Your task to perform on an android device: manage bookmarks in the chrome app Image 0: 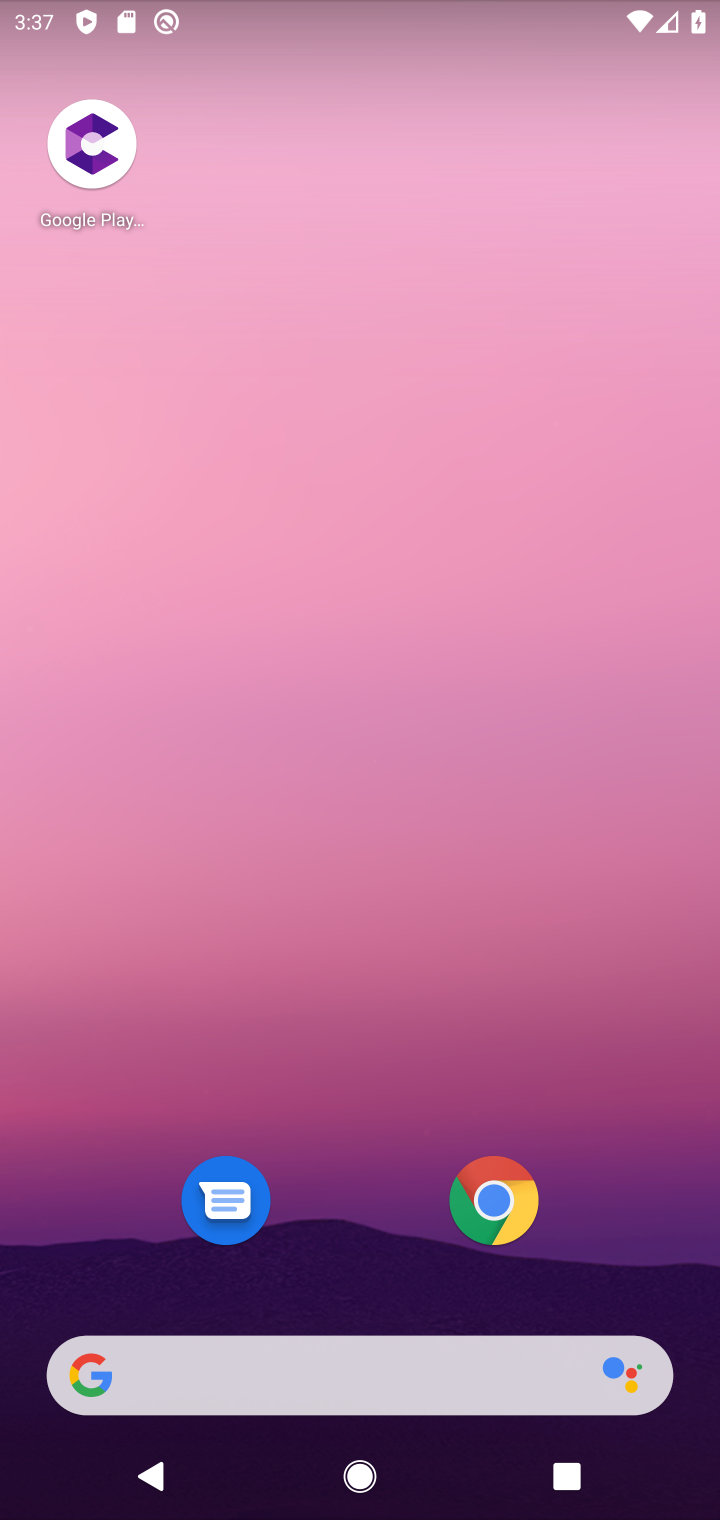
Step 0: click (478, 1227)
Your task to perform on an android device: manage bookmarks in the chrome app Image 1: 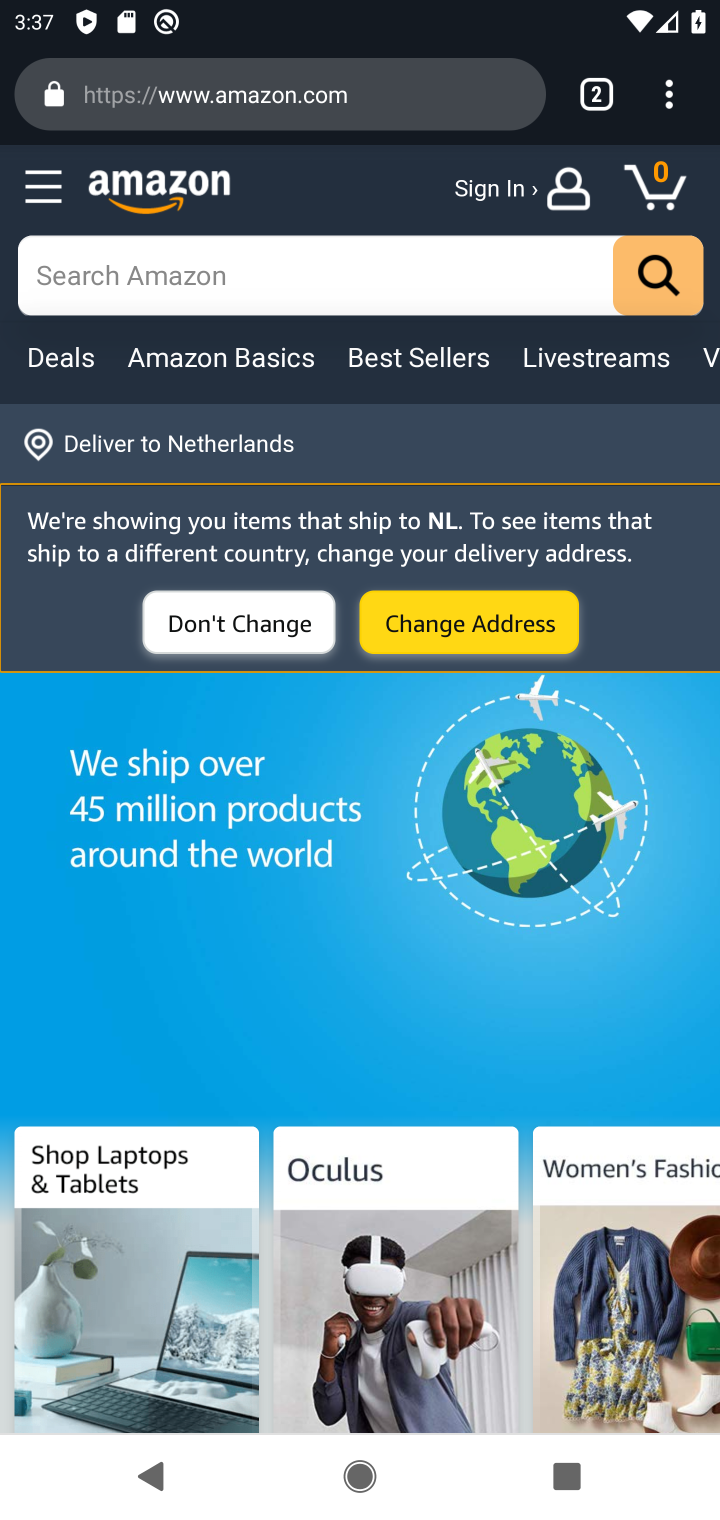
Step 1: click (674, 94)
Your task to perform on an android device: manage bookmarks in the chrome app Image 2: 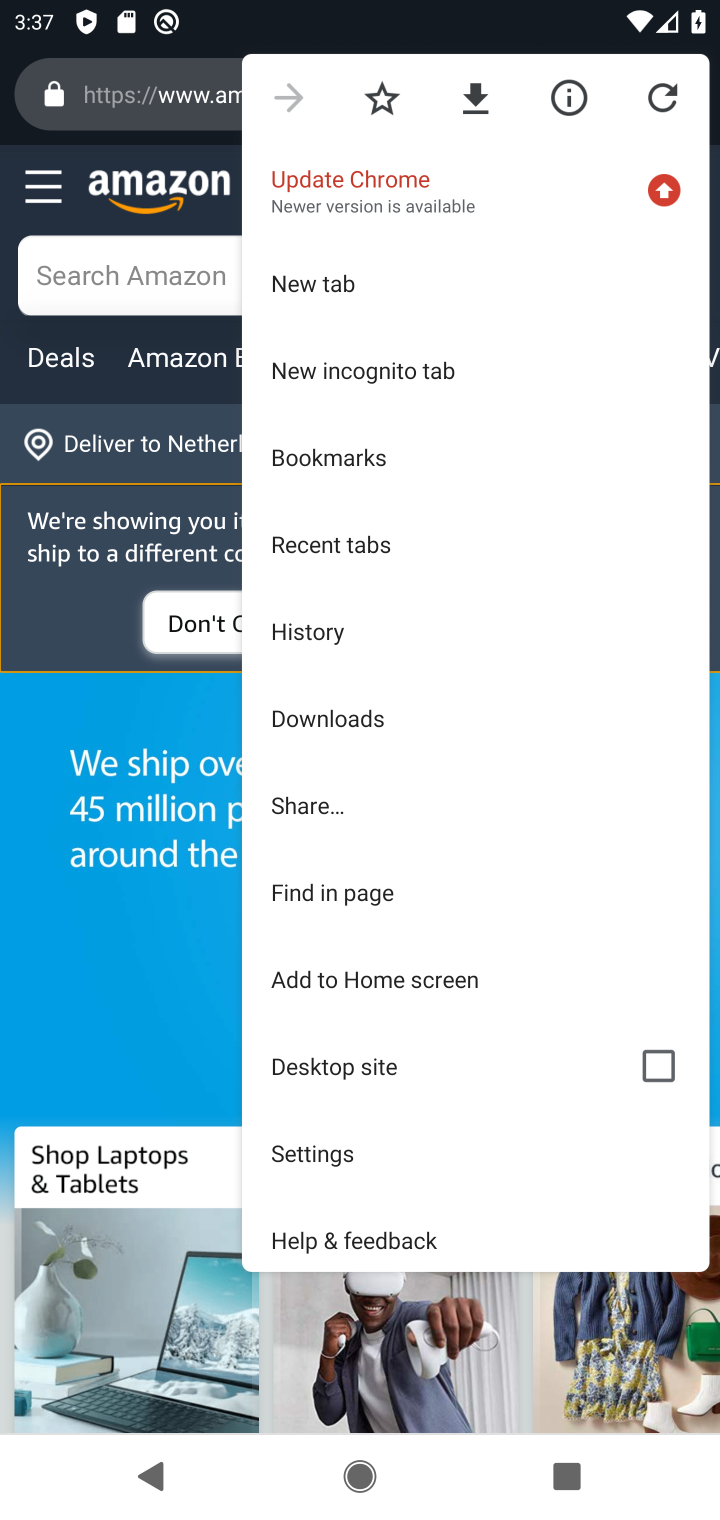
Step 2: click (340, 463)
Your task to perform on an android device: manage bookmarks in the chrome app Image 3: 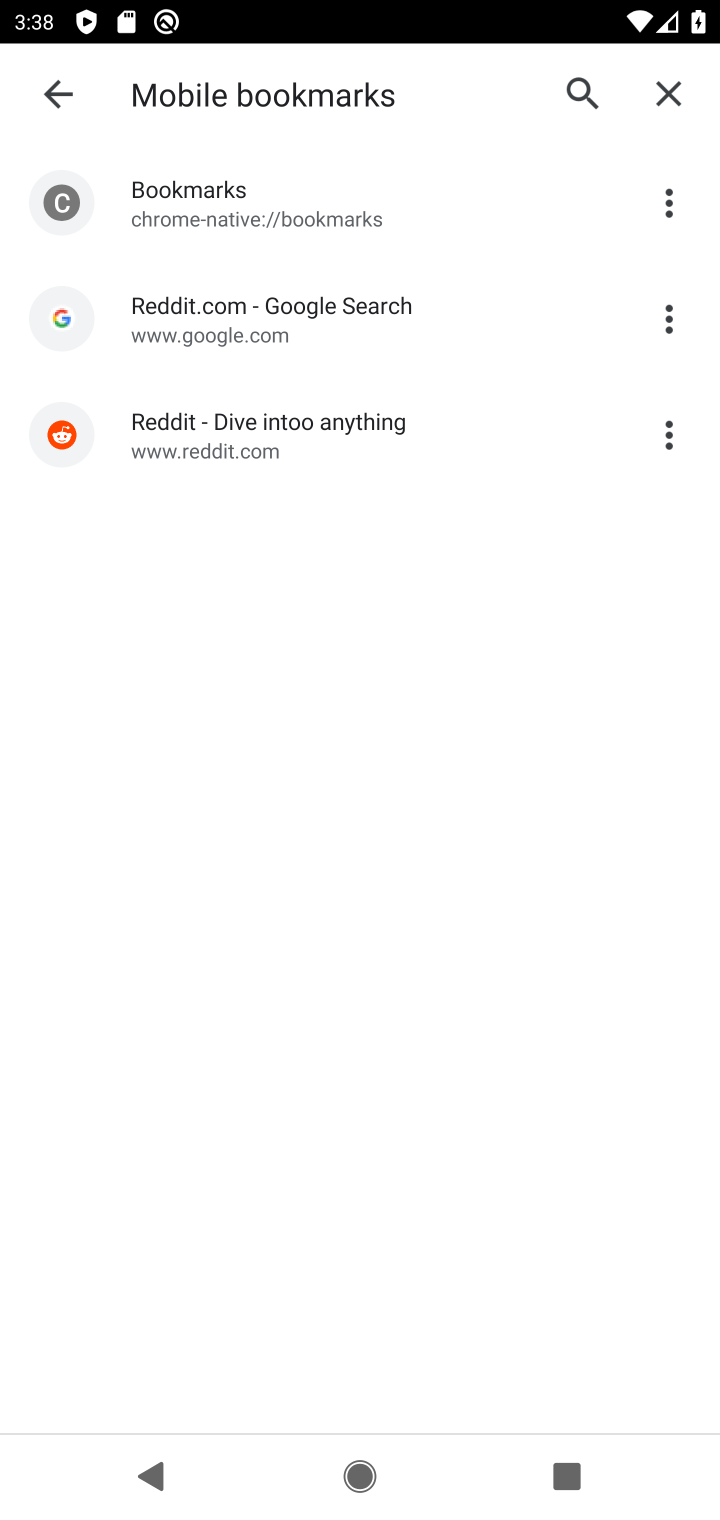
Step 3: click (659, 320)
Your task to perform on an android device: manage bookmarks in the chrome app Image 4: 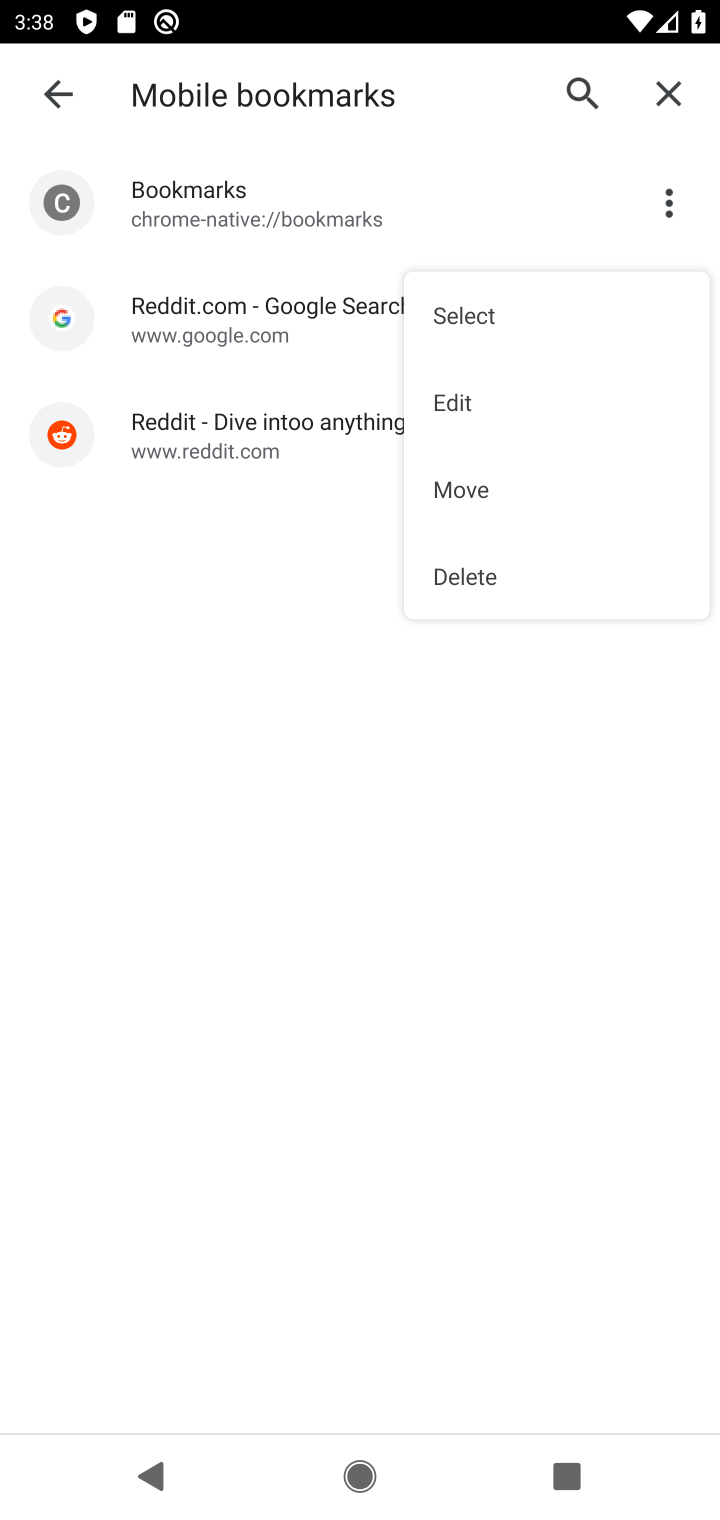
Step 4: click (479, 308)
Your task to perform on an android device: manage bookmarks in the chrome app Image 5: 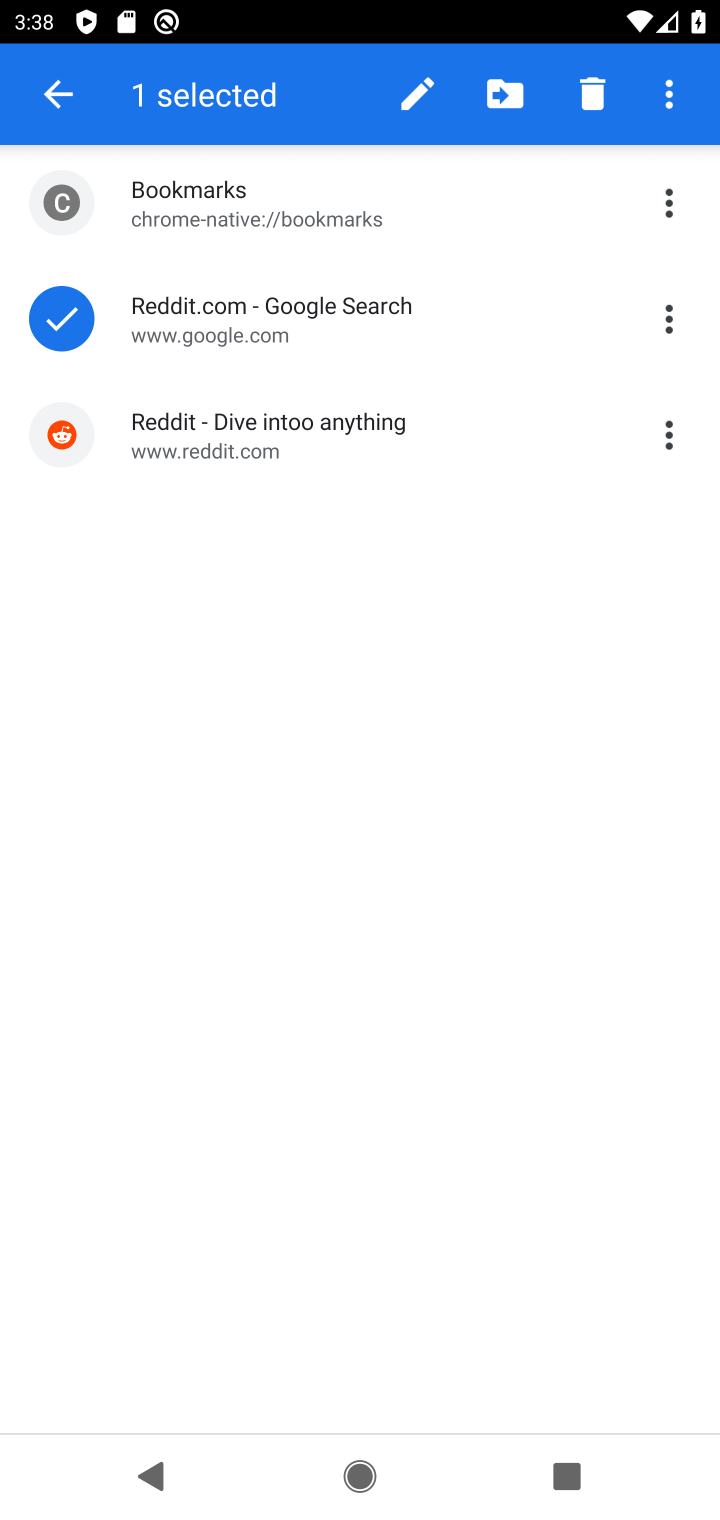
Step 5: click (287, 424)
Your task to perform on an android device: manage bookmarks in the chrome app Image 6: 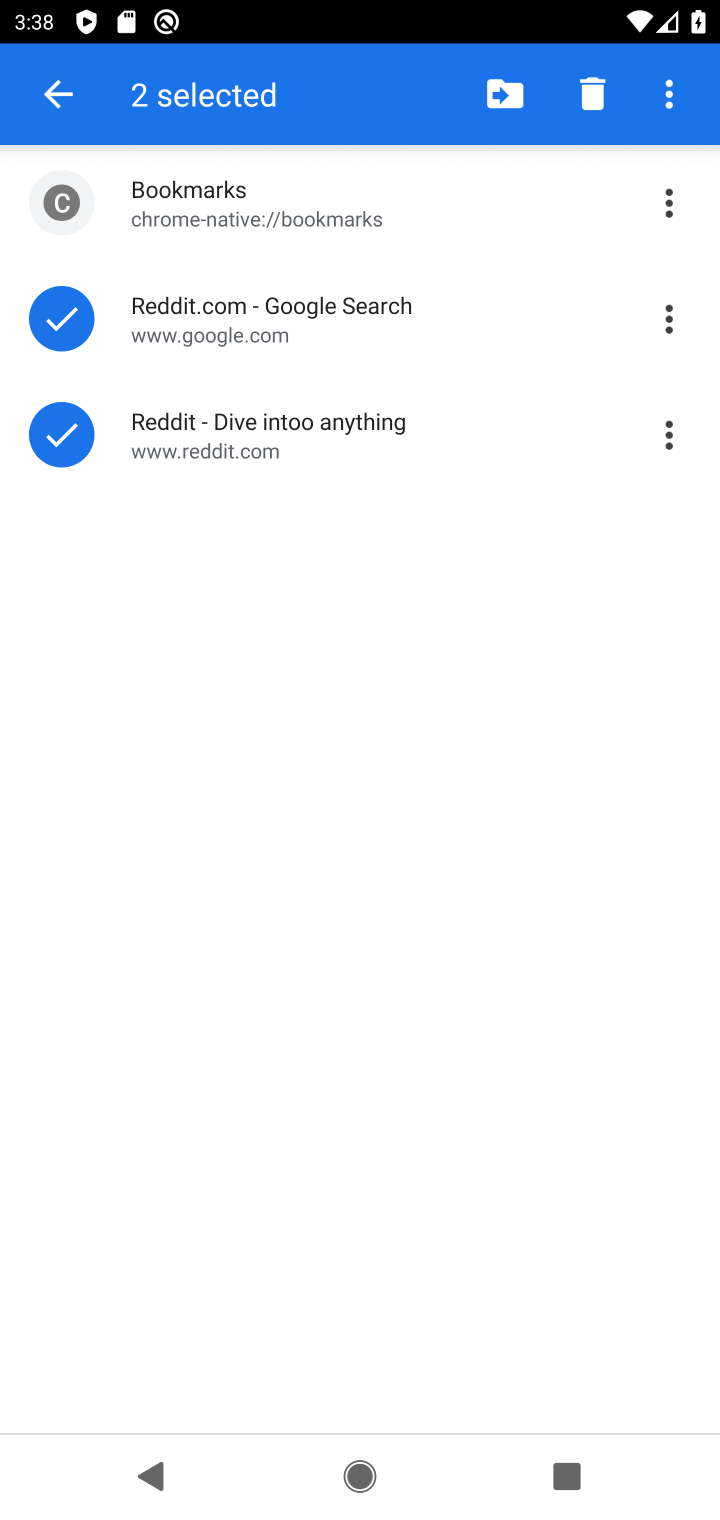
Step 6: click (497, 85)
Your task to perform on an android device: manage bookmarks in the chrome app Image 7: 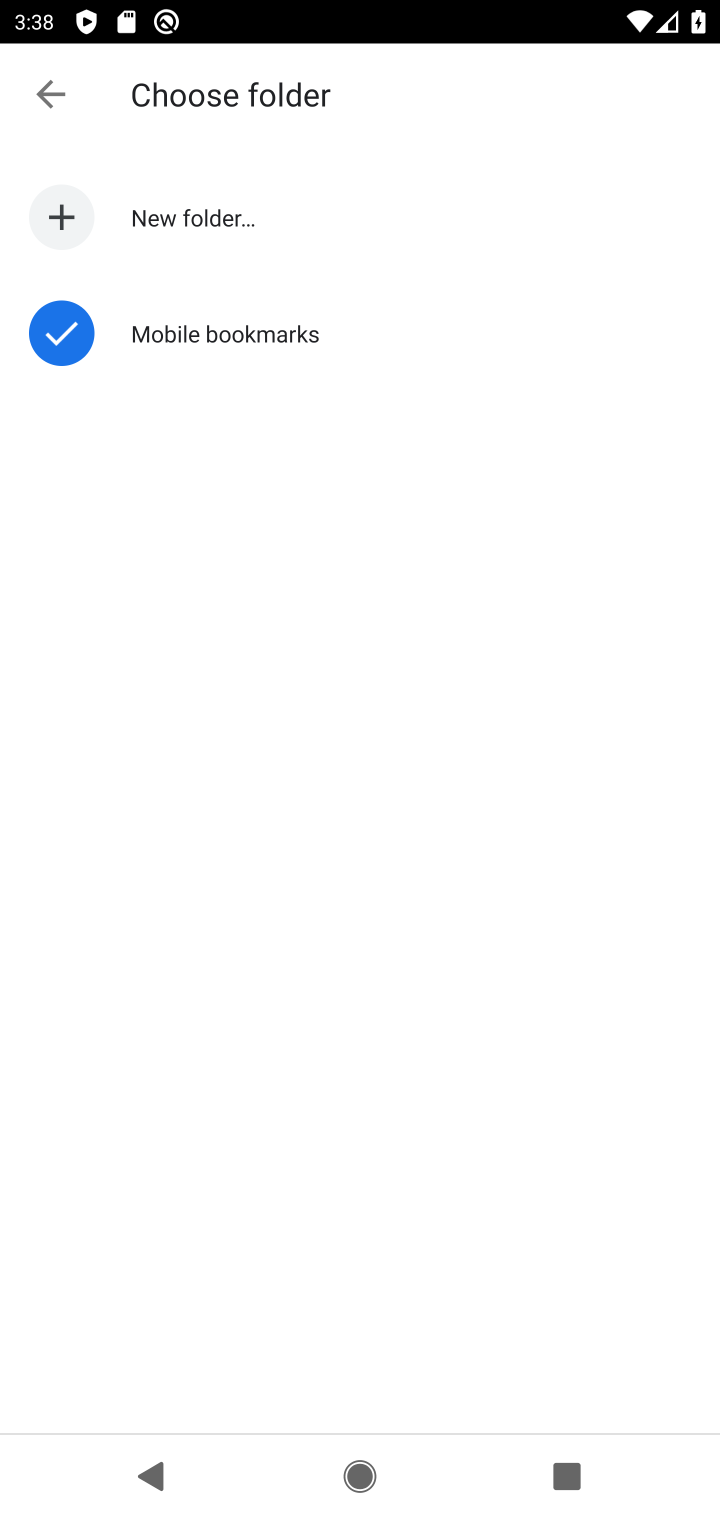
Step 7: click (216, 224)
Your task to perform on an android device: manage bookmarks in the chrome app Image 8: 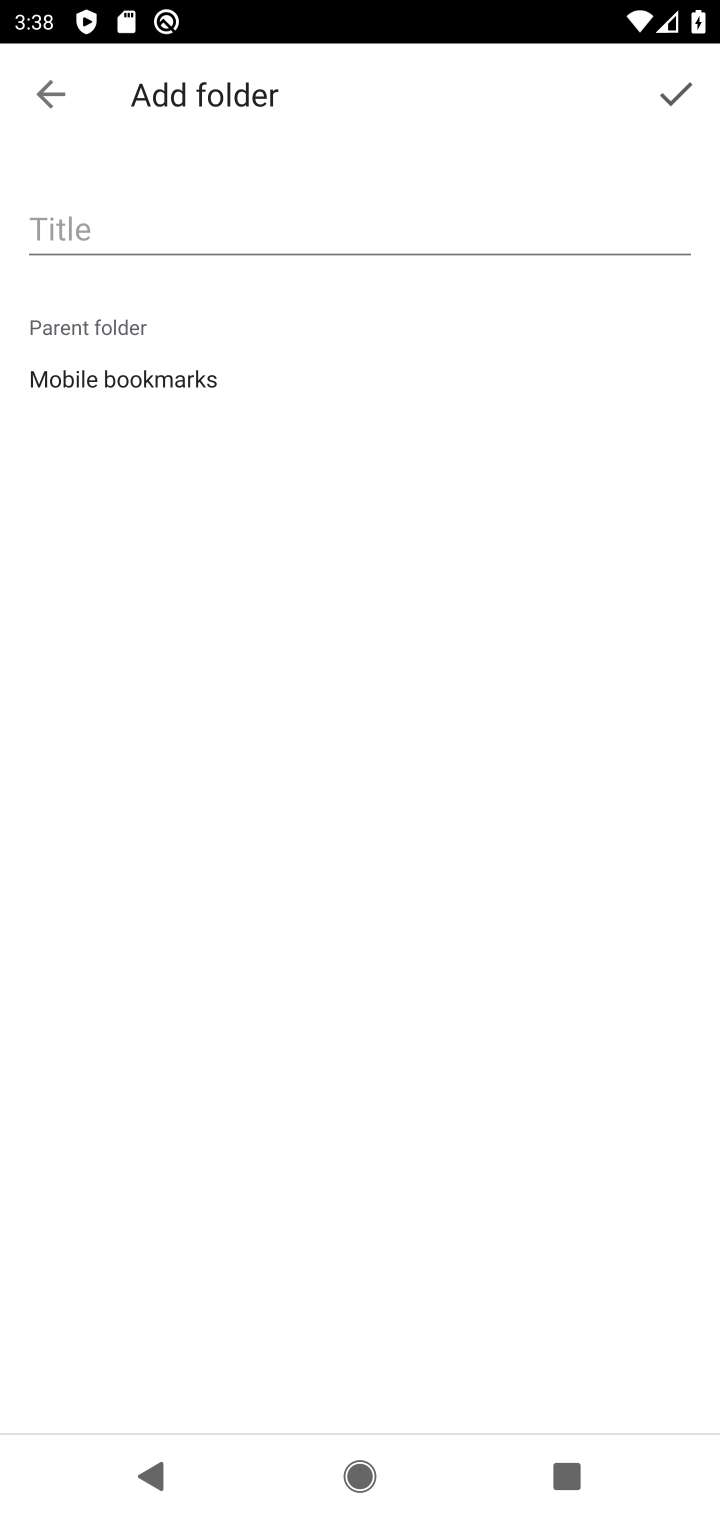
Step 8: click (508, 202)
Your task to perform on an android device: manage bookmarks in the chrome app Image 9: 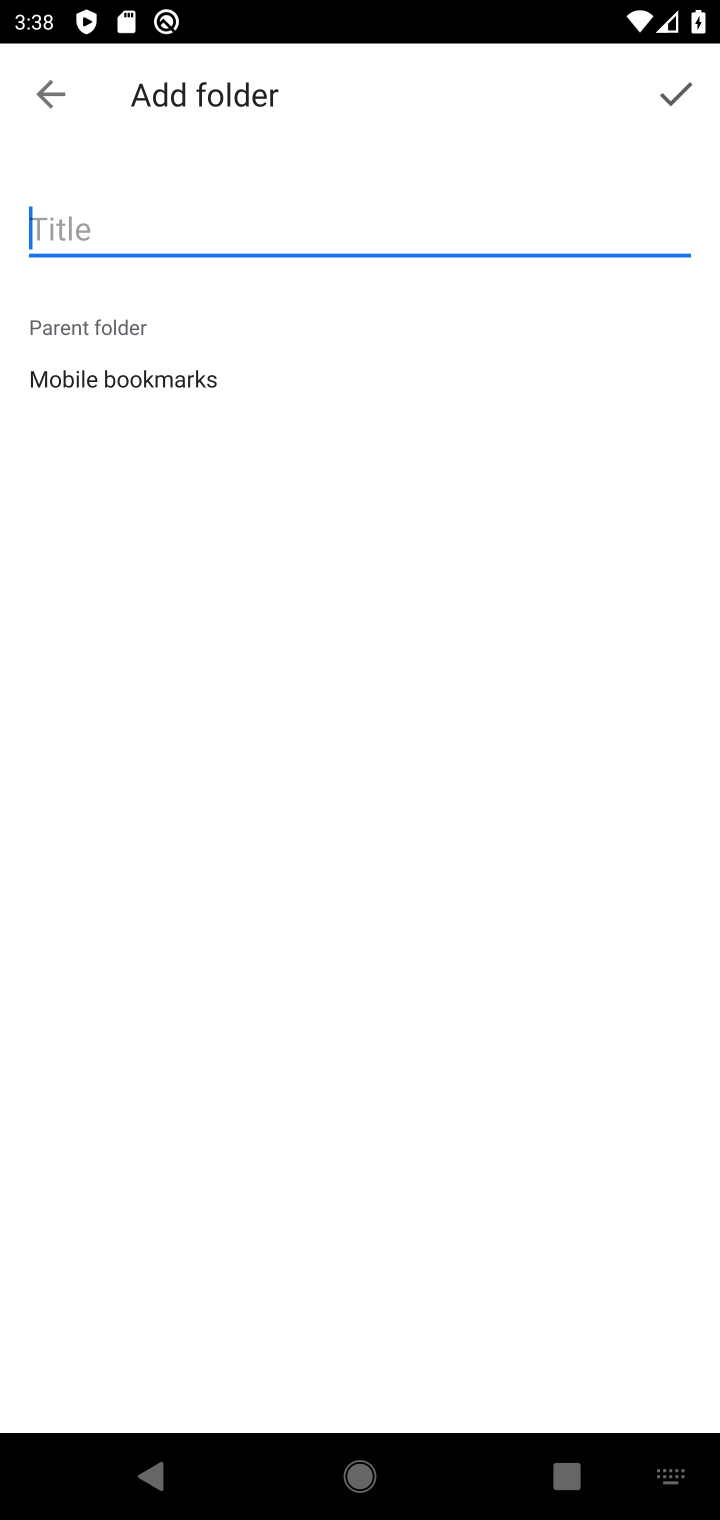
Step 9: type "must"
Your task to perform on an android device: manage bookmarks in the chrome app Image 10: 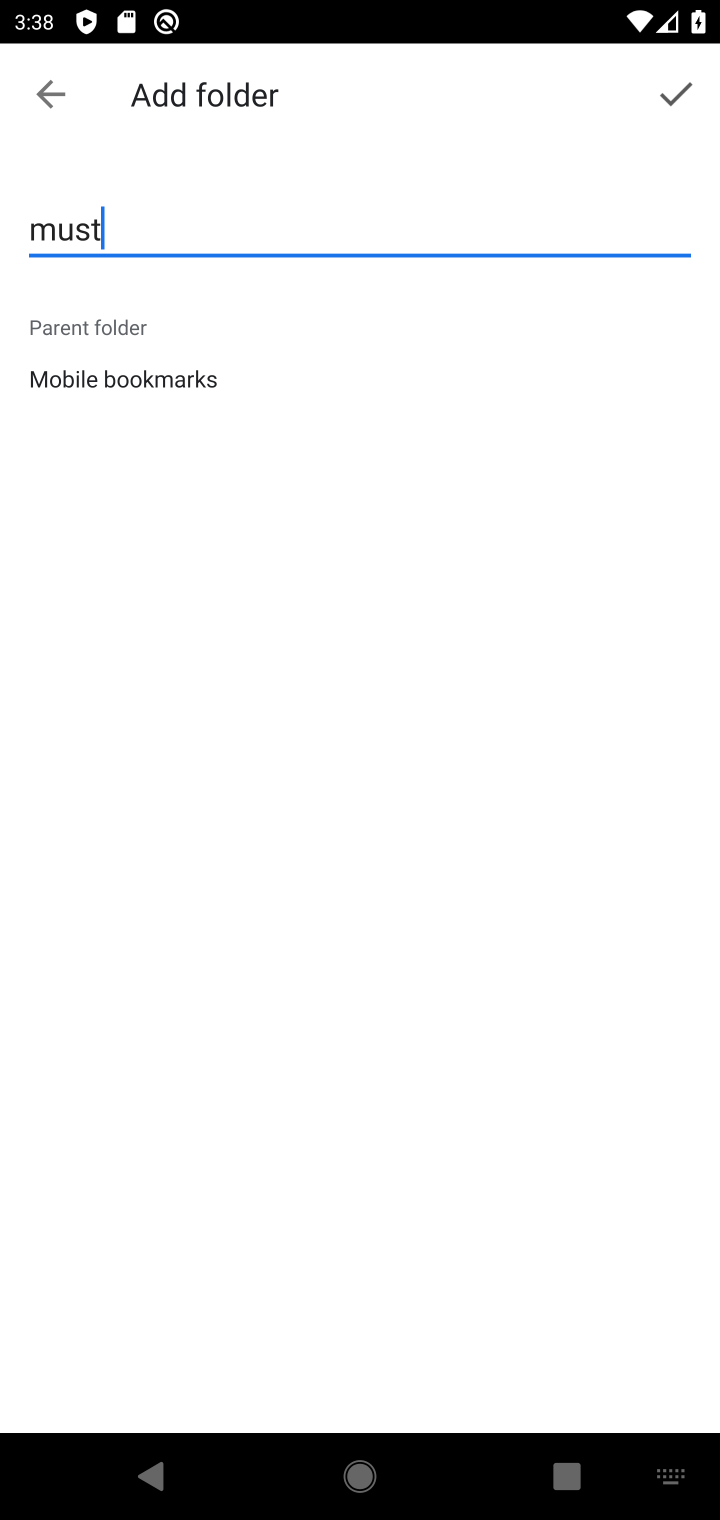
Step 10: click (689, 79)
Your task to perform on an android device: manage bookmarks in the chrome app Image 11: 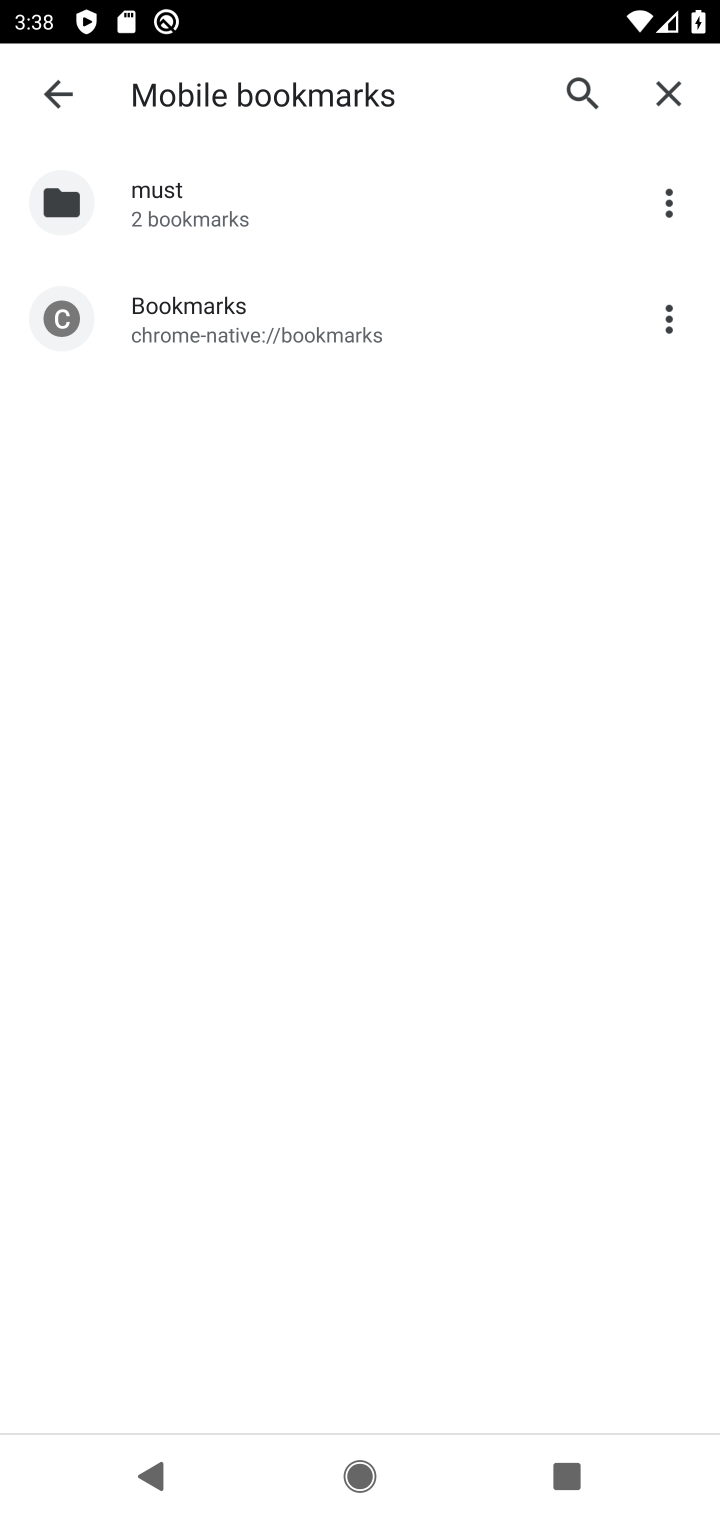
Step 11: task complete